Your task to perform on an android device: Open maps Image 0: 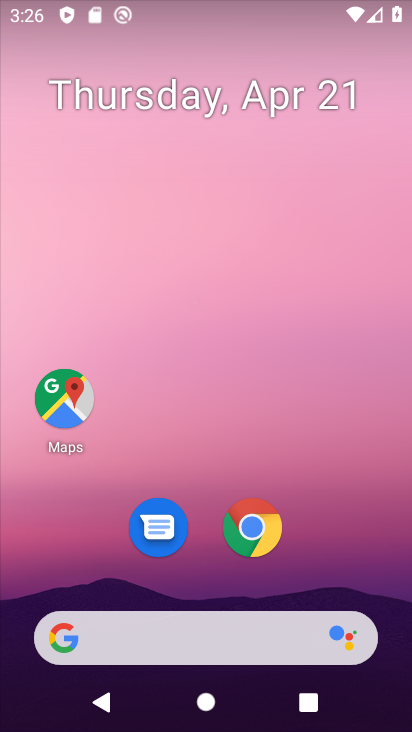
Step 0: drag from (365, 507) to (264, 40)
Your task to perform on an android device: Open maps Image 1: 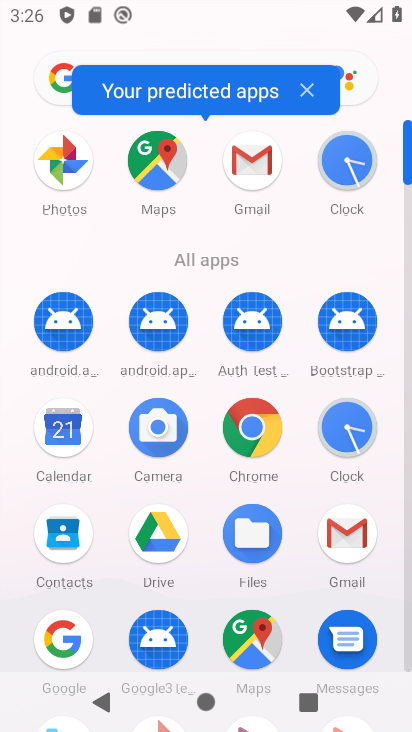
Step 1: click (152, 164)
Your task to perform on an android device: Open maps Image 2: 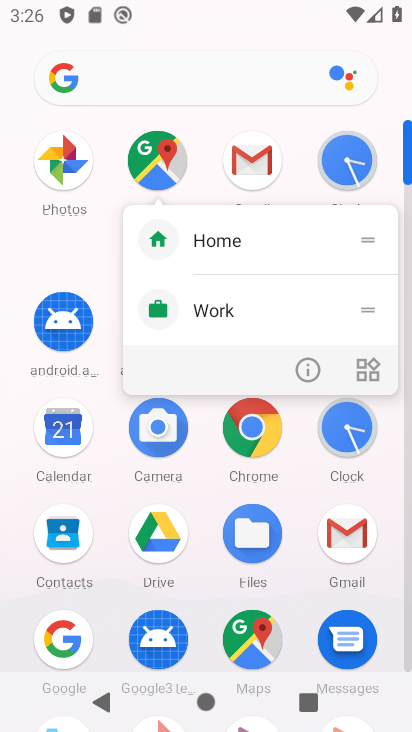
Step 2: click (161, 170)
Your task to perform on an android device: Open maps Image 3: 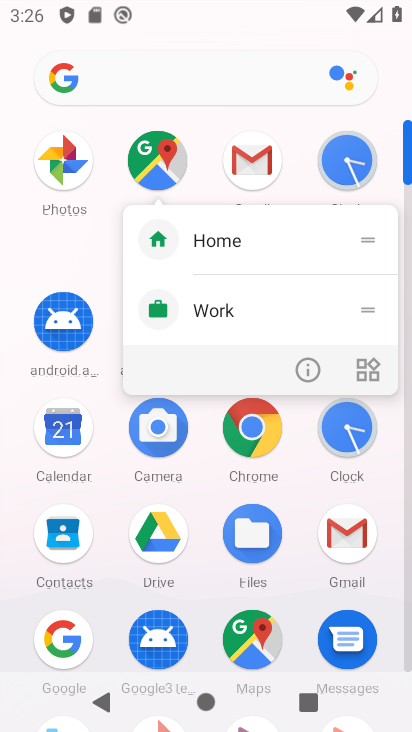
Step 3: click (161, 171)
Your task to perform on an android device: Open maps Image 4: 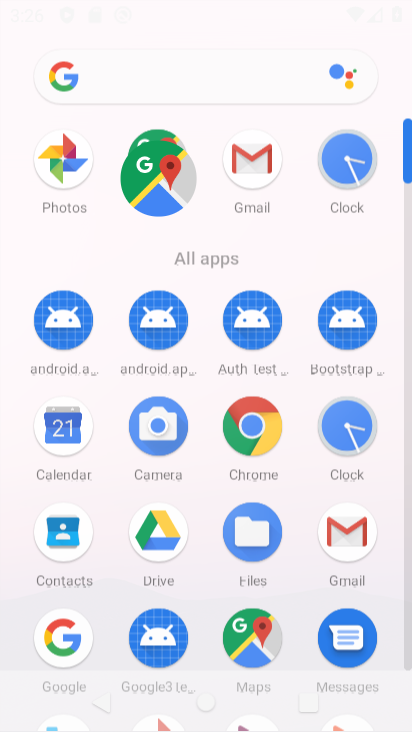
Step 4: click (161, 171)
Your task to perform on an android device: Open maps Image 5: 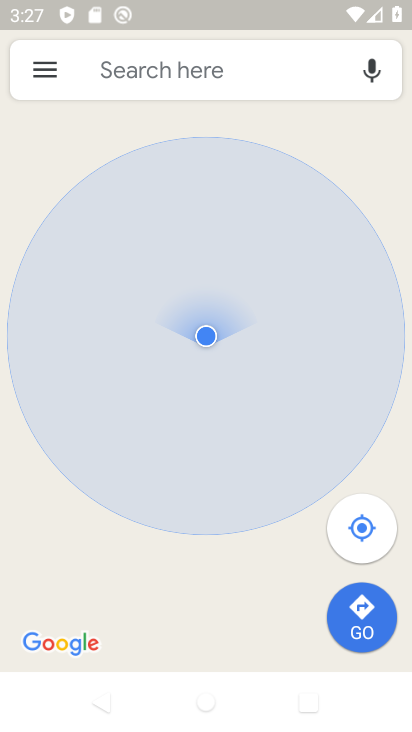
Step 5: task complete